Your task to perform on an android device: check out phone information Image 0: 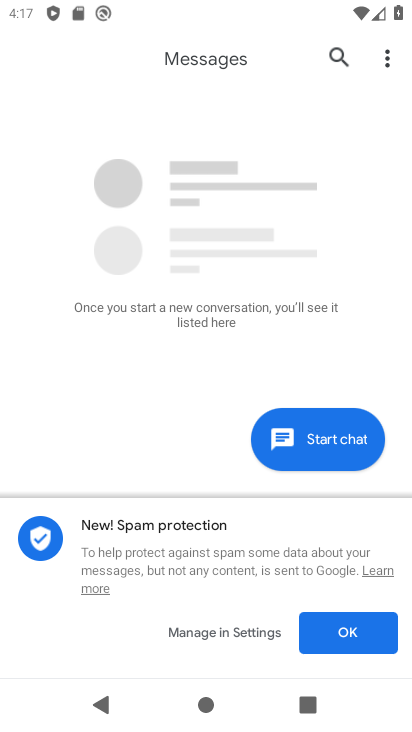
Step 0: press back button
Your task to perform on an android device: check out phone information Image 1: 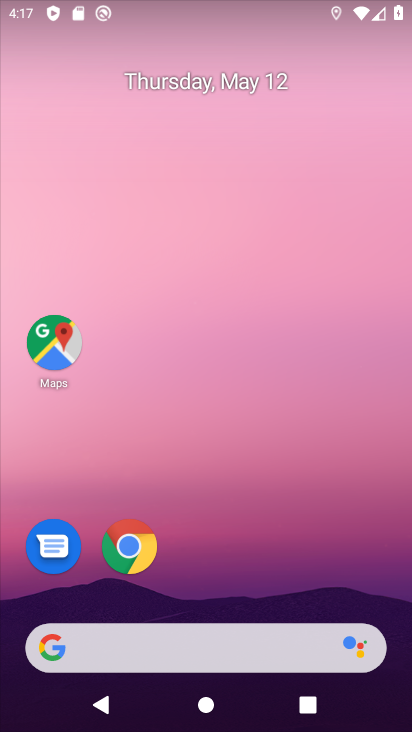
Step 1: drag from (235, 544) to (226, 29)
Your task to perform on an android device: check out phone information Image 2: 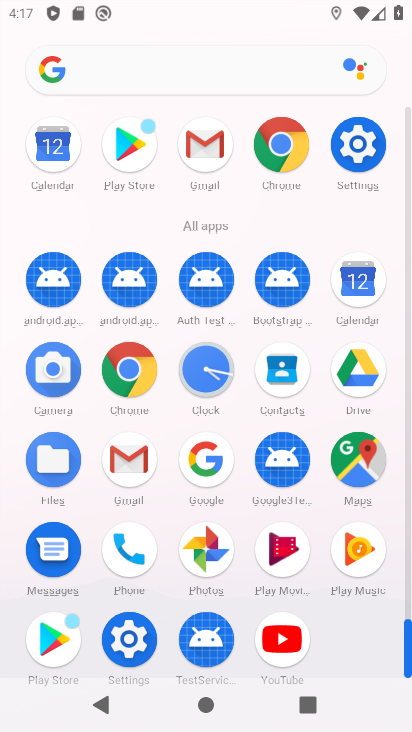
Step 2: click (127, 639)
Your task to perform on an android device: check out phone information Image 3: 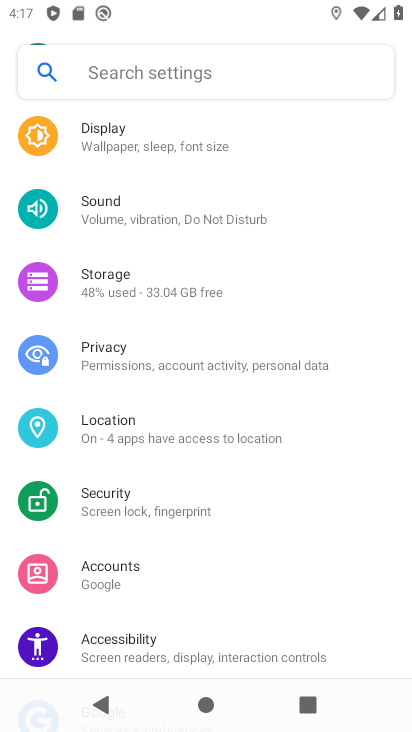
Step 3: drag from (225, 548) to (235, 148)
Your task to perform on an android device: check out phone information Image 4: 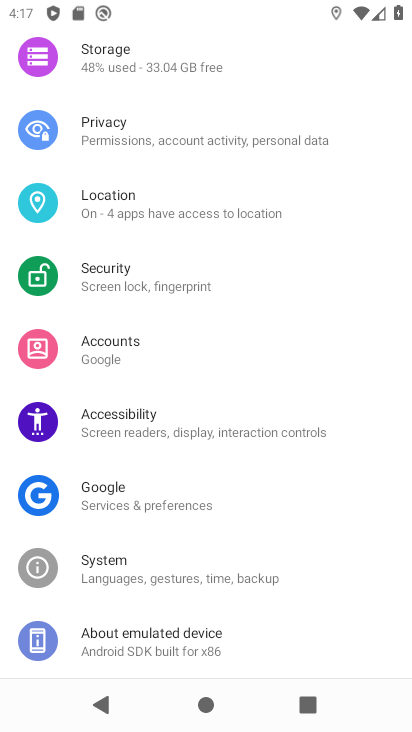
Step 4: click (171, 647)
Your task to perform on an android device: check out phone information Image 5: 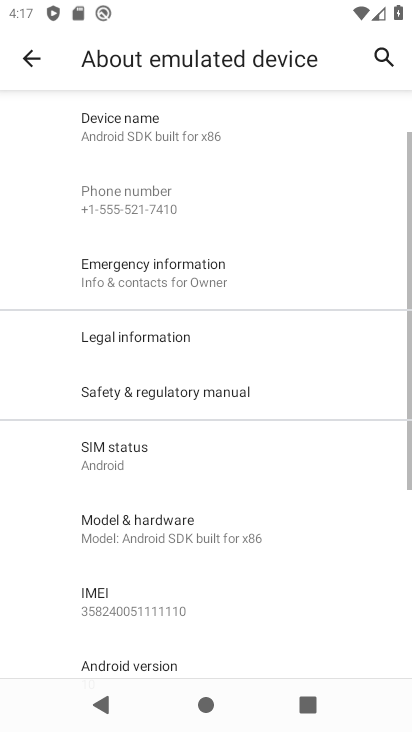
Step 5: task complete